Your task to perform on an android device: check out phone information Image 0: 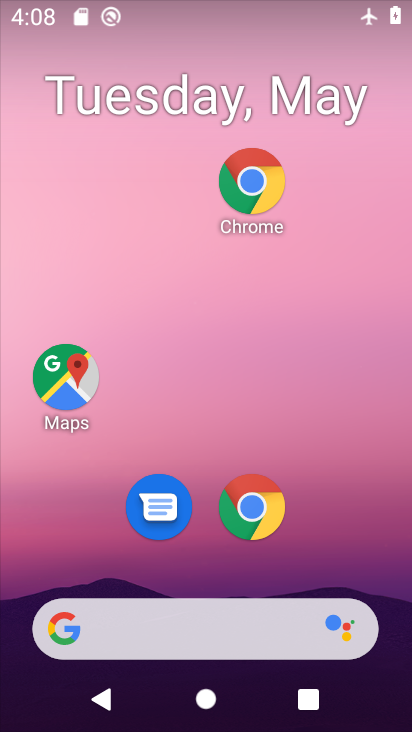
Step 0: drag from (378, 524) to (356, 129)
Your task to perform on an android device: check out phone information Image 1: 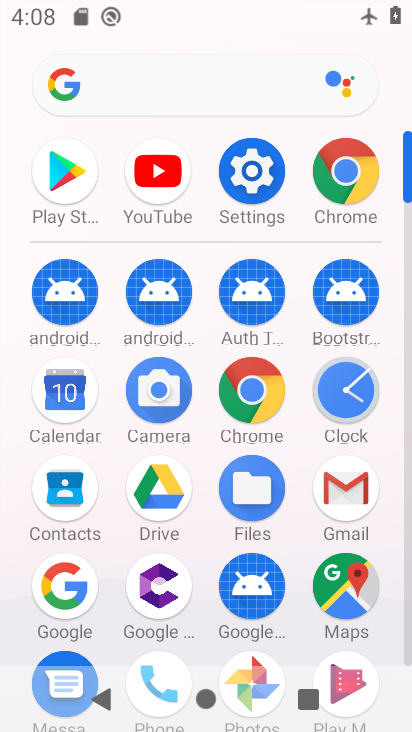
Step 1: click (241, 192)
Your task to perform on an android device: check out phone information Image 2: 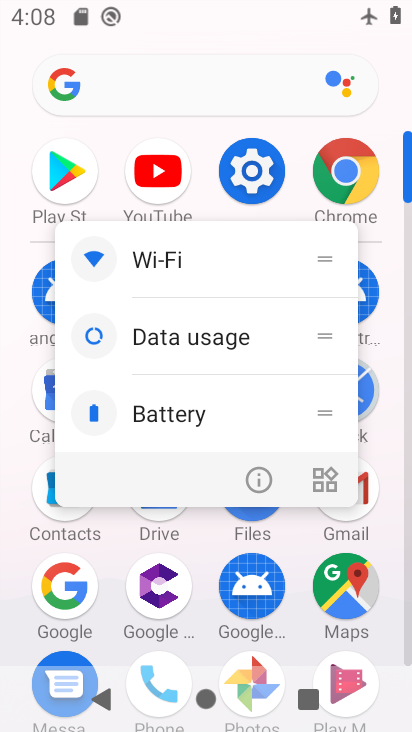
Step 2: click (257, 164)
Your task to perform on an android device: check out phone information Image 3: 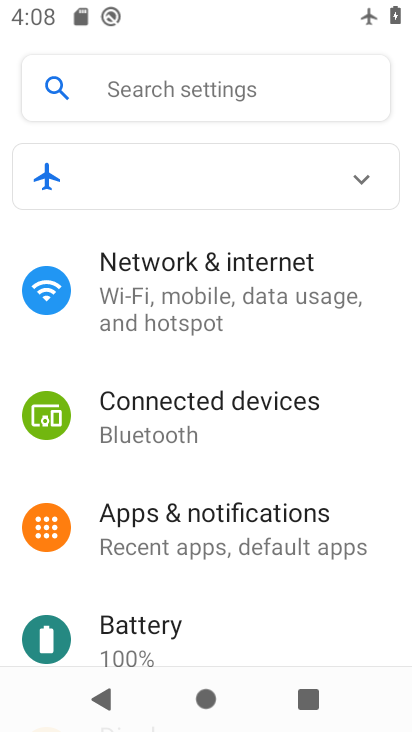
Step 3: drag from (291, 519) to (293, 161)
Your task to perform on an android device: check out phone information Image 4: 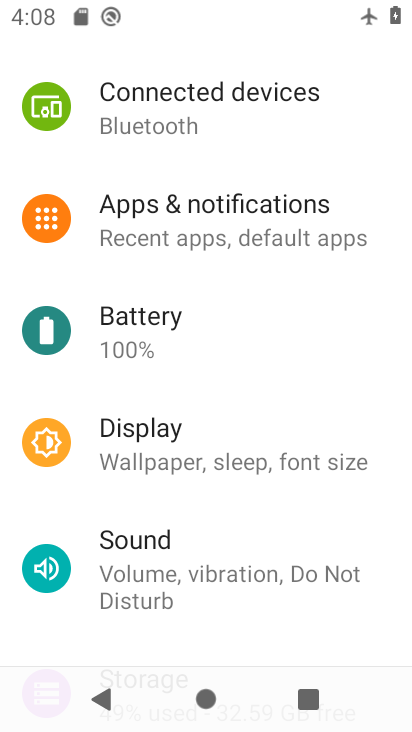
Step 4: drag from (272, 552) to (249, 261)
Your task to perform on an android device: check out phone information Image 5: 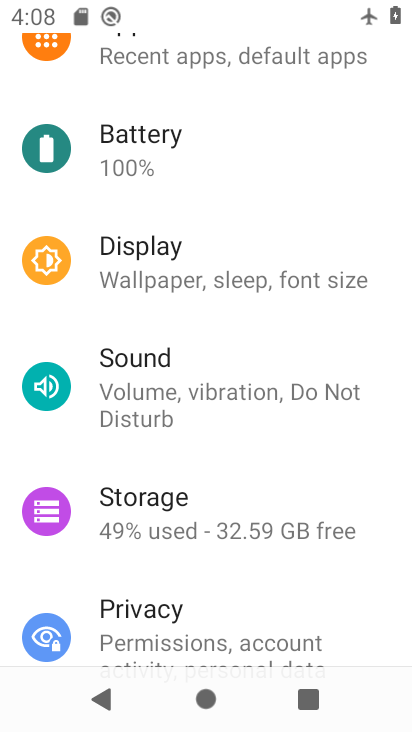
Step 5: drag from (253, 529) to (180, 203)
Your task to perform on an android device: check out phone information Image 6: 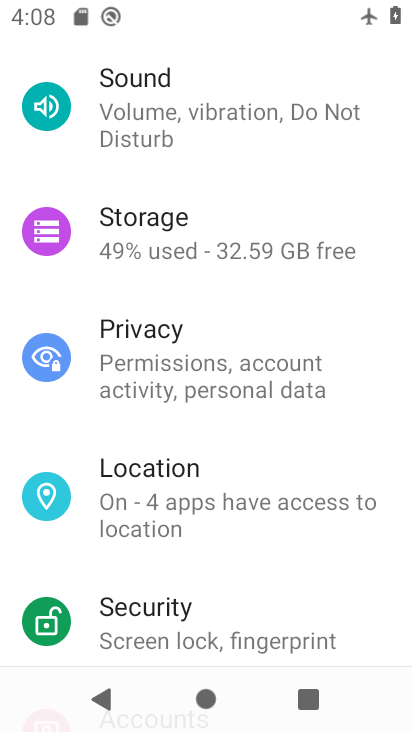
Step 6: drag from (285, 576) to (214, 106)
Your task to perform on an android device: check out phone information Image 7: 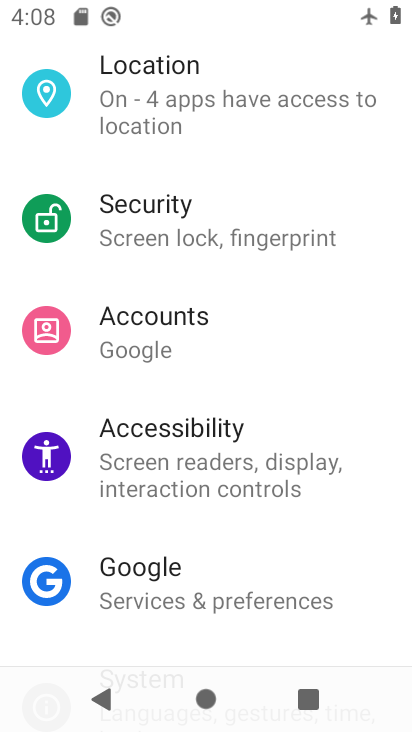
Step 7: drag from (233, 524) to (194, 119)
Your task to perform on an android device: check out phone information Image 8: 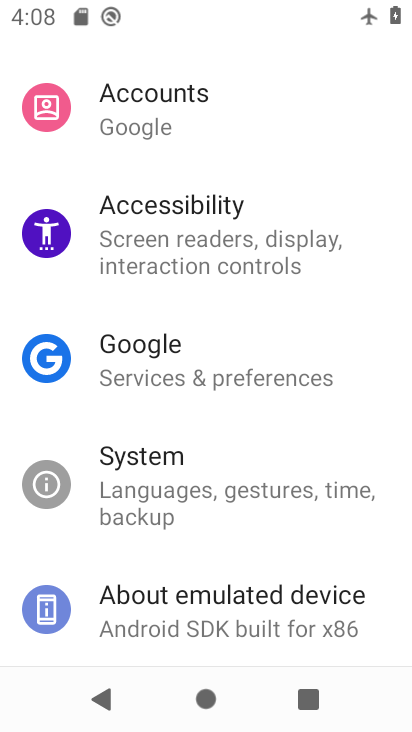
Step 8: click (273, 601)
Your task to perform on an android device: check out phone information Image 9: 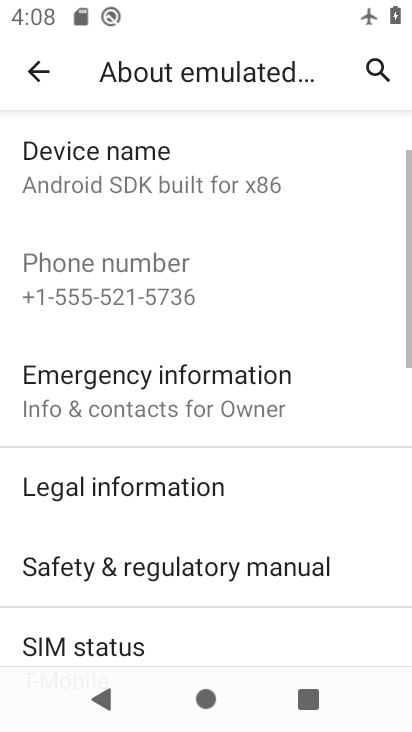
Step 9: task complete